Your task to perform on an android device: toggle javascript in the chrome app Image 0: 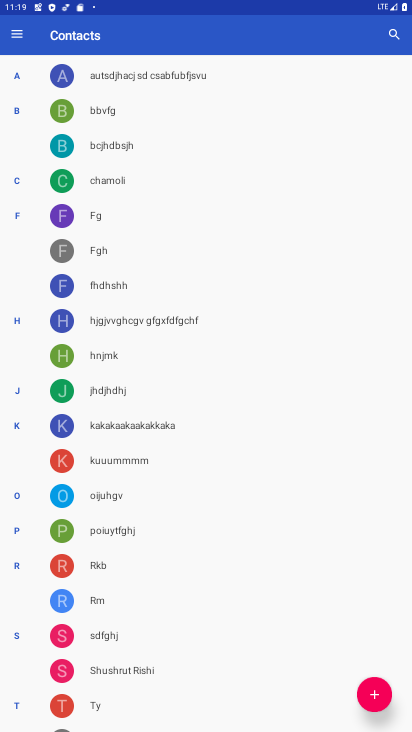
Step 0: press home button
Your task to perform on an android device: toggle javascript in the chrome app Image 1: 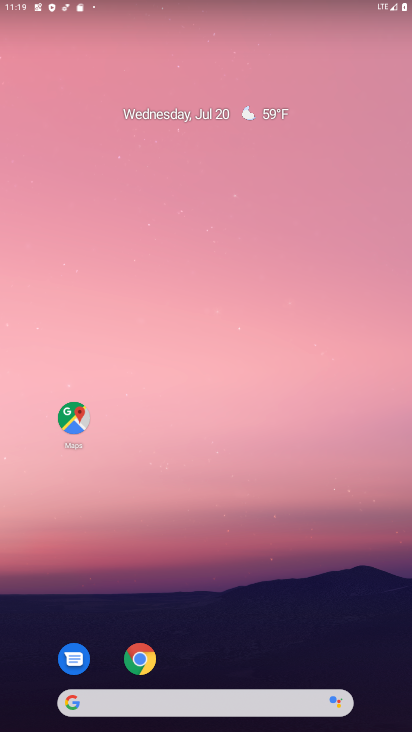
Step 1: click (137, 655)
Your task to perform on an android device: toggle javascript in the chrome app Image 2: 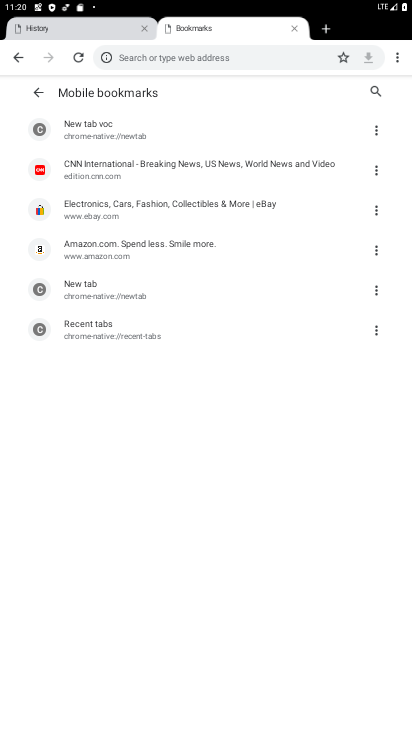
Step 2: click (398, 58)
Your task to perform on an android device: toggle javascript in the chrome app Image 3: 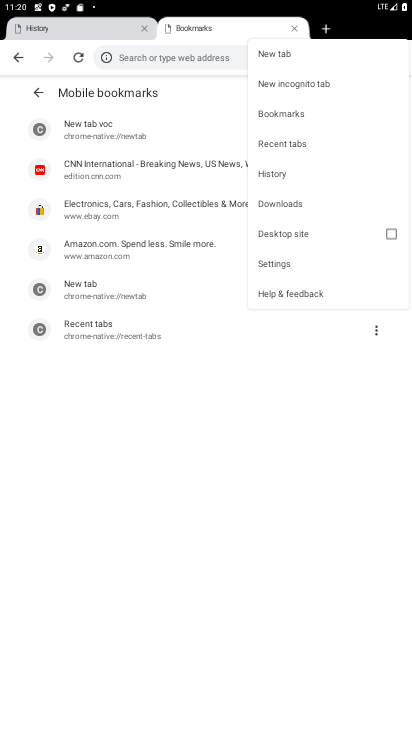
Step 3: click (277, 262)
Your task to perform on an android device: toggle javascript in the chrome app Image 4: 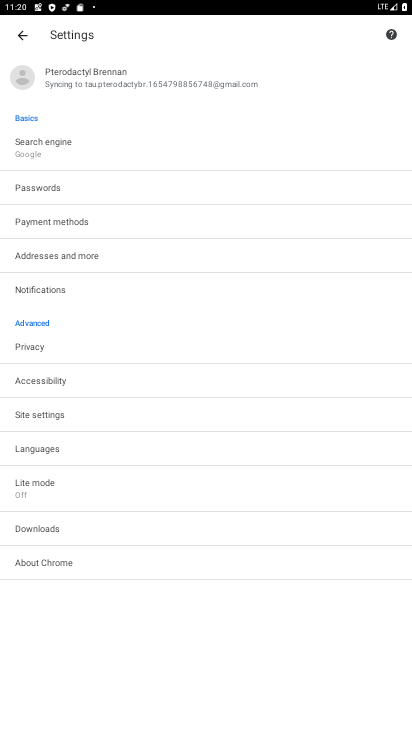
Step 4: click (37, 415)
Your task to perform on an android device: toggle javascript in the chrome app Image 5: 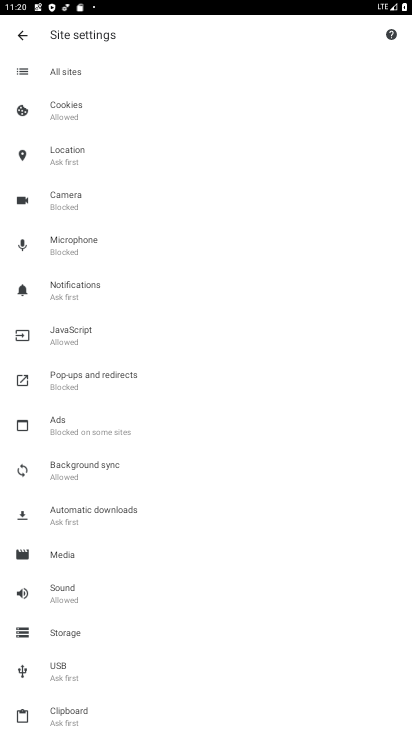
Step 5: click (65, 337)
Your task to perform on an android device: toggle javascript in the chrome app Image 6: 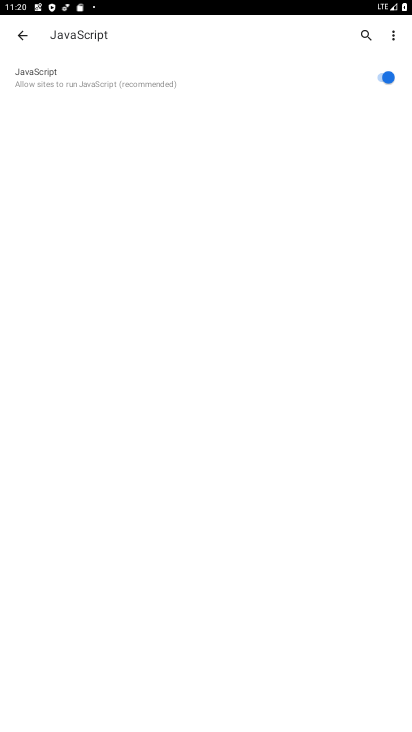
Step 6: click (387, 79)
Your task to perform on an android device: toggle javascript in the chrome app Image 7: 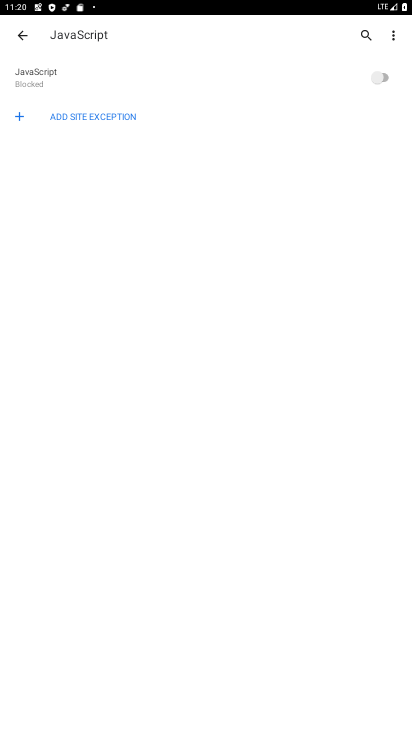
Step 7: task complete